Your task to perform on an android device: Go to network settings Image 0: 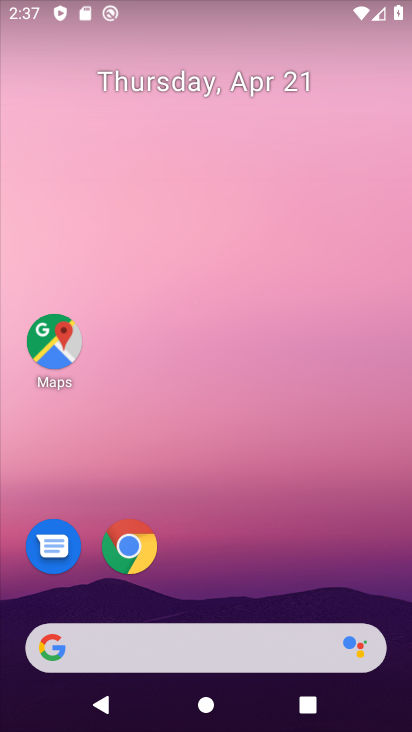
Step 0: drag from (247, 577) to (247, 113)
Your task to perform on an android device: Go to network settings Image 1: 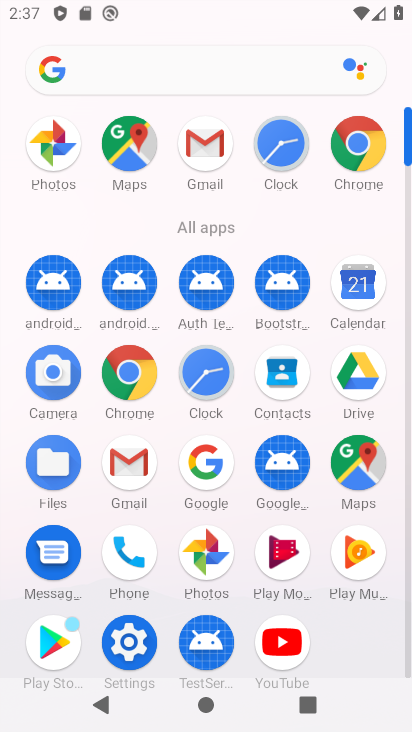
Step 1: click (133, 626)
Your task to perform on an android device: Go to network settings Image 2: 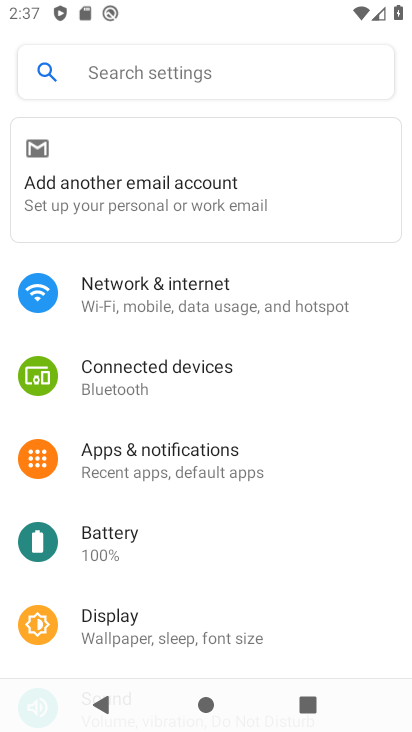
Step 2: click (236, 298)
Your task to perform on an android device: Go to network settings Image 3: 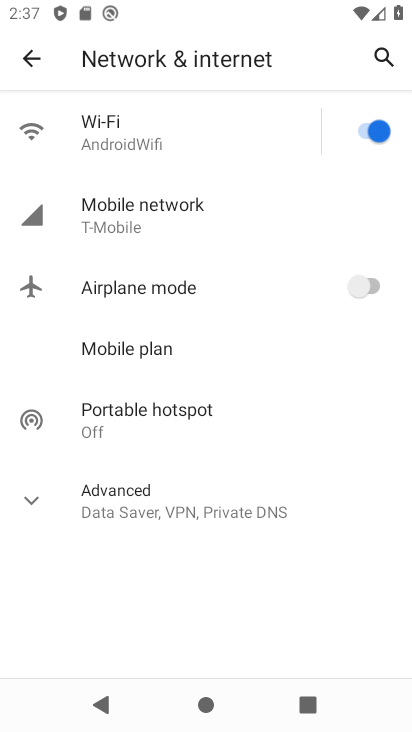
Step 3: task complete